Your task to perform on an android device: turn on javascript in the chrome app Image 0: 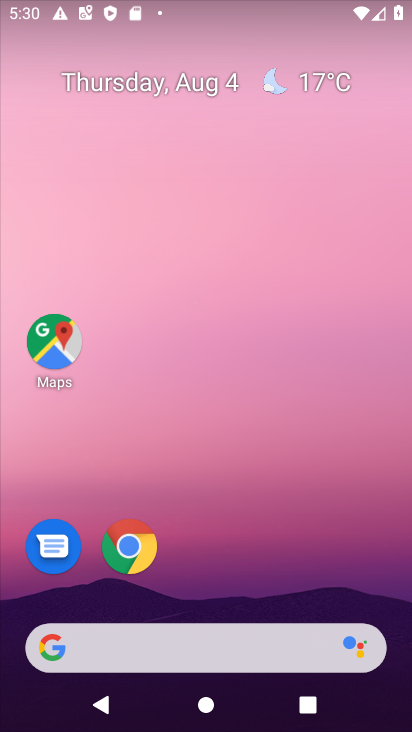
Step 0: click (127, 543)
Your task to perform on an android device: turn on javascript in the chrome app Image 1: 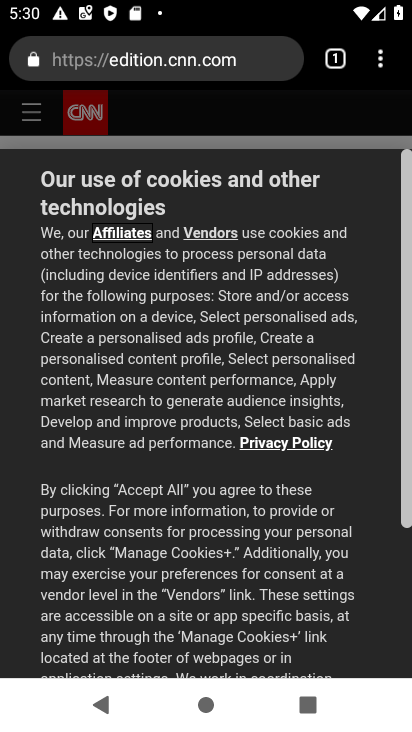
Step 1: click (391, 64)
Your task to perform on an android device: turn on javascript in the chrome app Image 2: 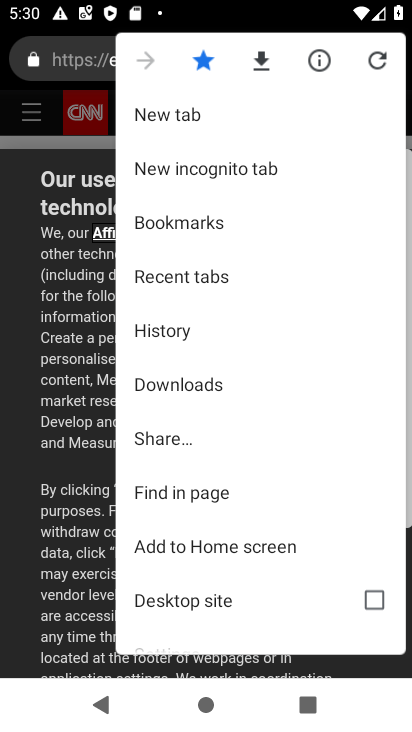
Step 2: drag from (181, 572) to (218, 220)
Your task to perform on an android device: turn on javascript in the chrome app Image 3: 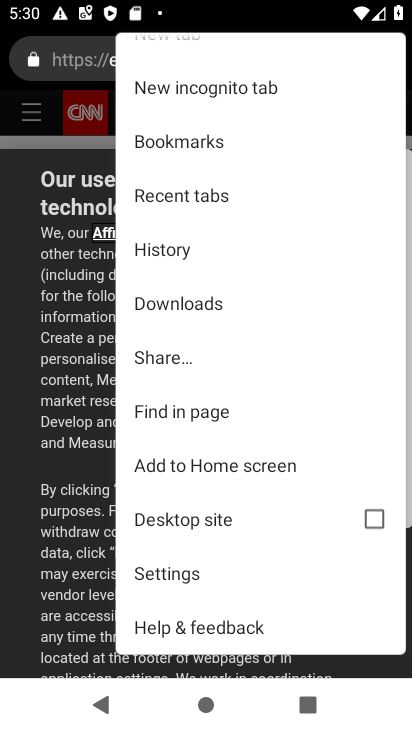
Step 3: click (162, 569)
Your task to perform on an android device: turn on javascript in the chrome app Image 4: 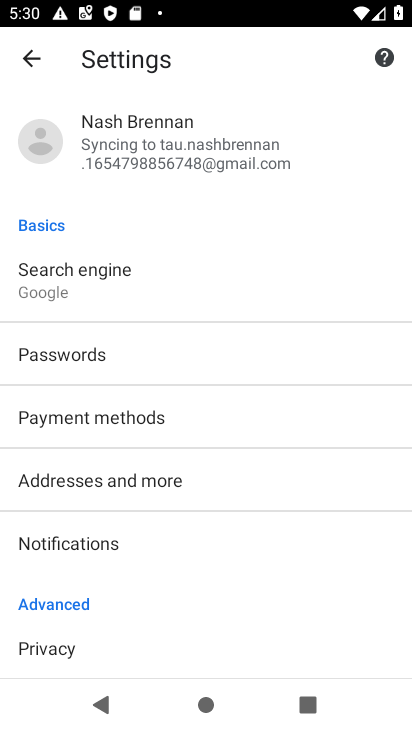
Step 4: drag from (162, 537) to (205, 157)
Your task to perform on an android device: turn on javascript in the chrome app Image 5: 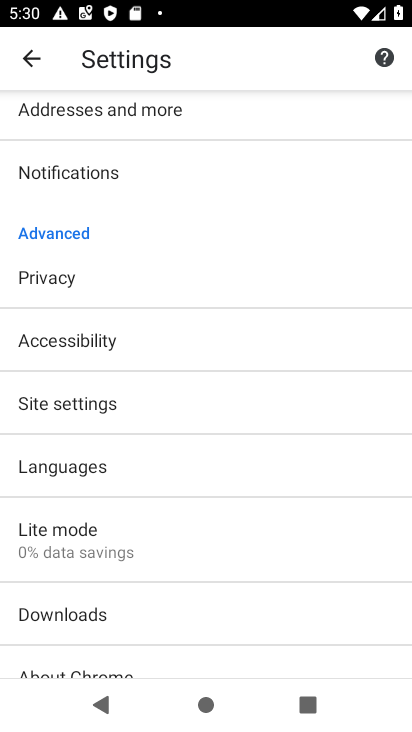
Step 5: click (92, 396)
Your task to perform on an android device: turn on javascript in the chrome app Image 6: 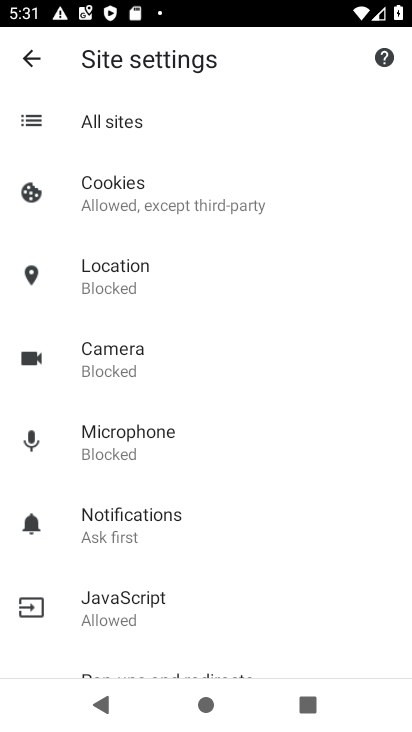
Step 6: click (156, 613)
Your task to perform on an android device: turn on javascript in the chrome app Image 7: 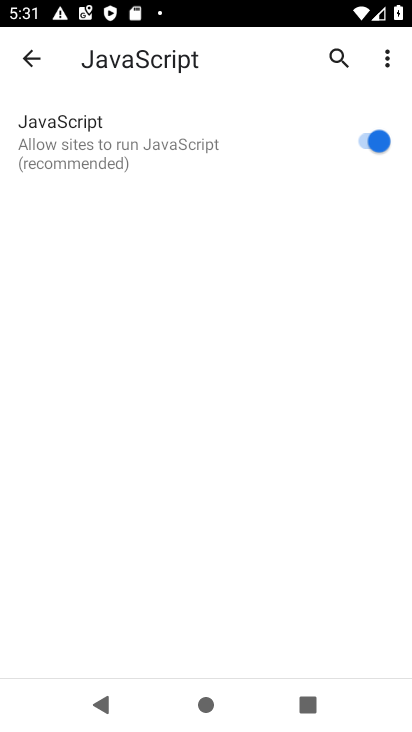
Step 7: task complete